Your task to perform on an android device: Search for bose quietcomfort 35 on costco, select the first entry, add it to the cart, then select checkout. Image 0: 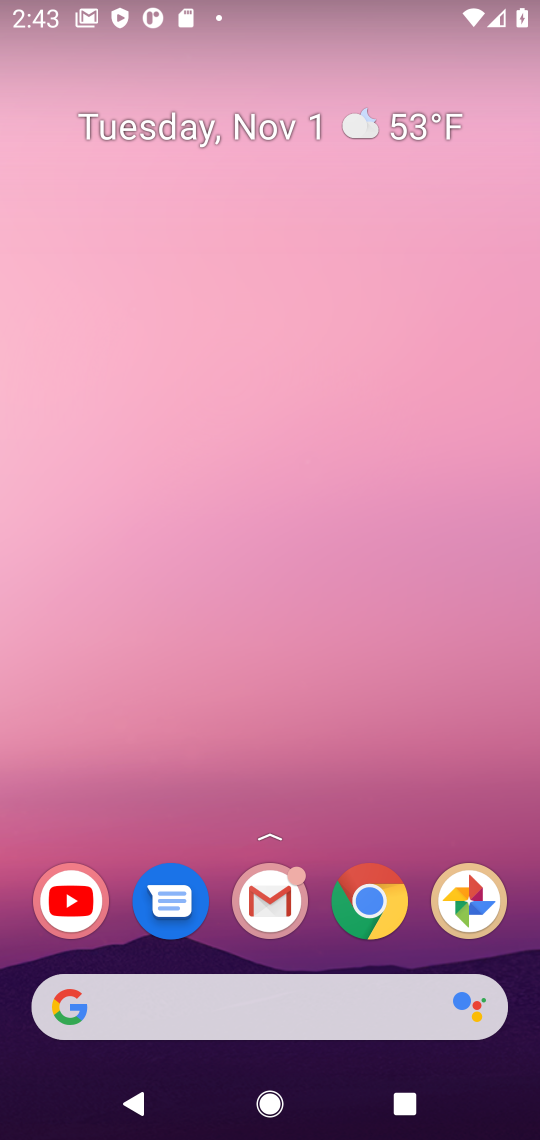
Step 0: click (365, 893)
Your task to perform on an android device: Search for bose quietcomfort 35 on costco, select the first entry, add it to the cart, then select checkout. Image 1: 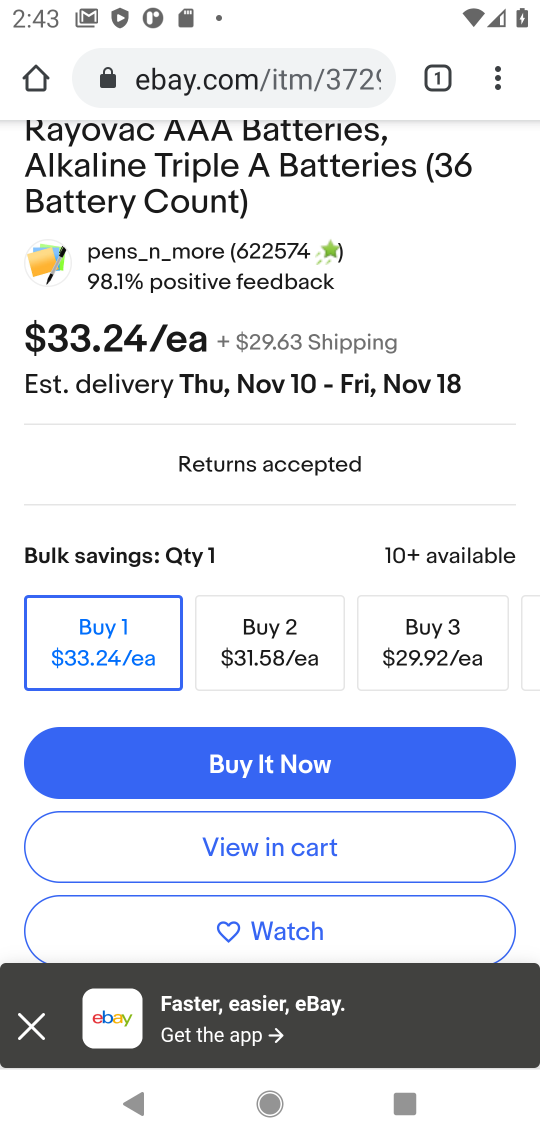
Step 1: click (297, 72)
Your task to perform on an android device: Search for bose quietcomfort 35 on costco, select the first entry, add it to the cart, then select checkout. Image 2: 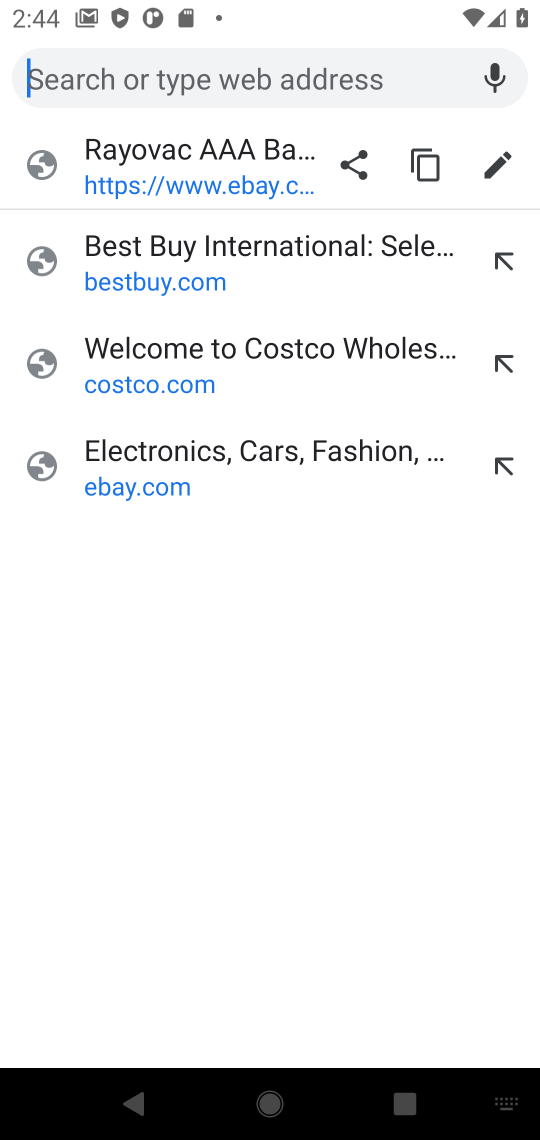
Step 2: type "costco"
Your task to perform on an android device: Search for bose quietcomfort 35 on costco, select the first entry, add it to the cart, then select checkout. Image 3: 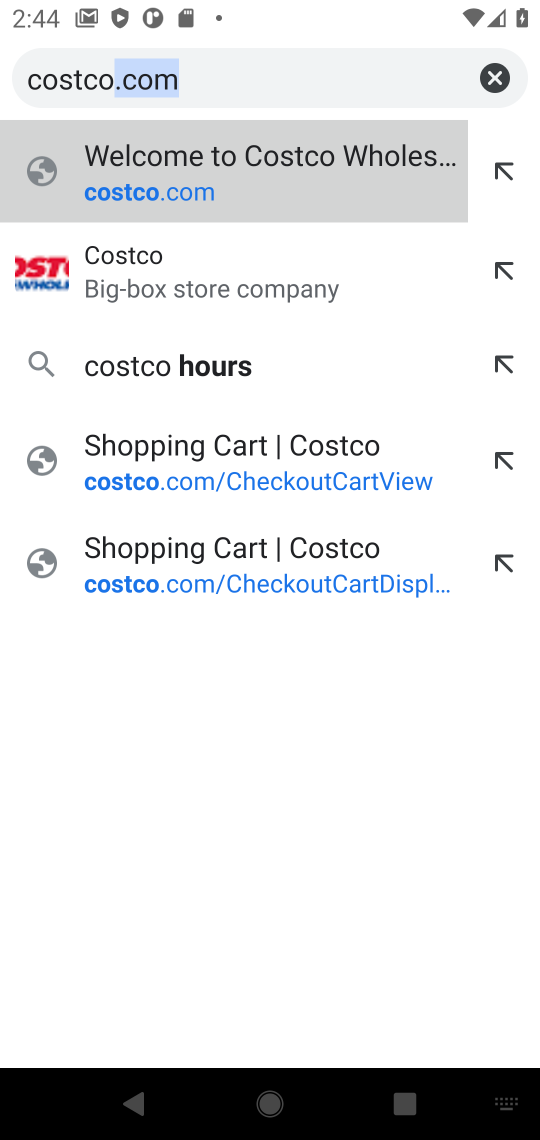
Step 3: click (203, 158)
Your task to perform on an android device: Search for bose quietcomfort 35 on costco, select the first entry, add it to the cart, then select checkout. Image 4: 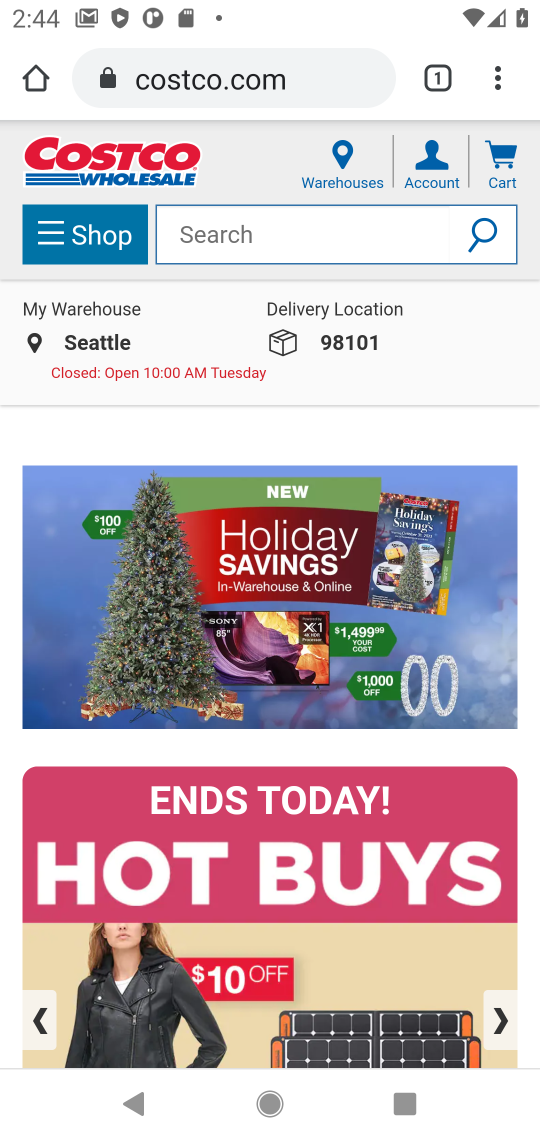
Step 4: click (207, 228)
Your task to perform on an android device: Search for bose quietcomfort 35 on costco, select the first entry, add it to the cart, then select checkout. Image 5: 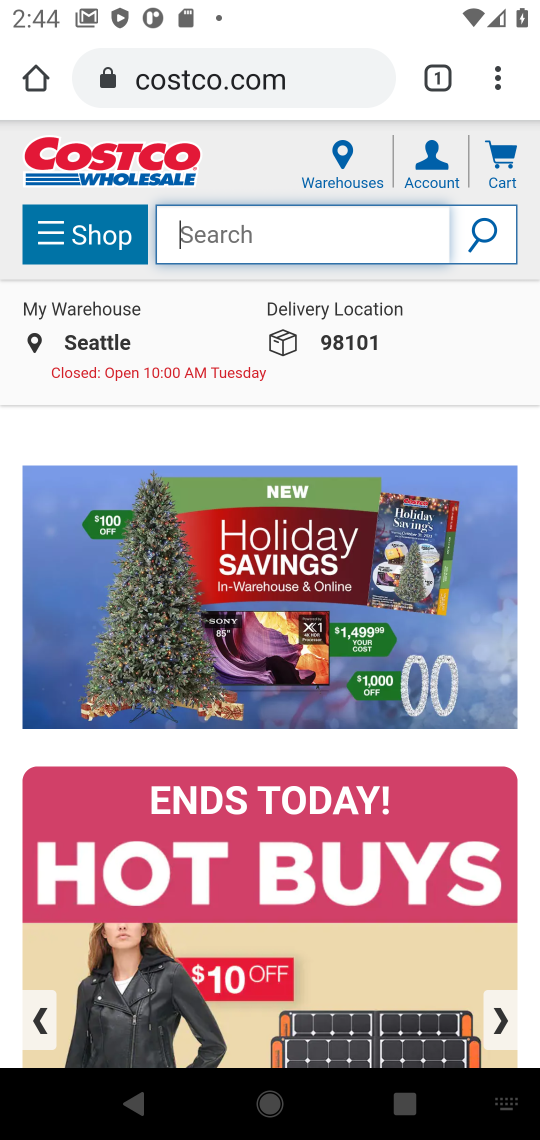
Step 5: type "bose quietcomfort 35"
Your task to perform on an android device: Search for bose quietcomfort 35 on costco, select the first entry, add it to the cart, then select checkout. Image 6: 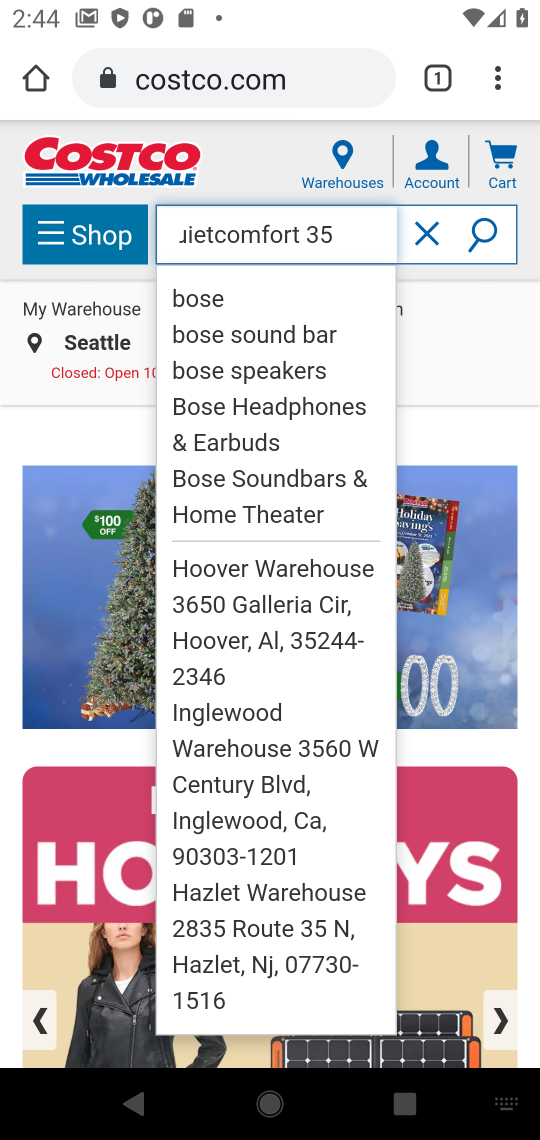
Step 6: press enter
Your task to perform on an android device: Search for bose quietcomfort 35 on costco, select the first entry, add it to the cart, then select checkout. Image 7: 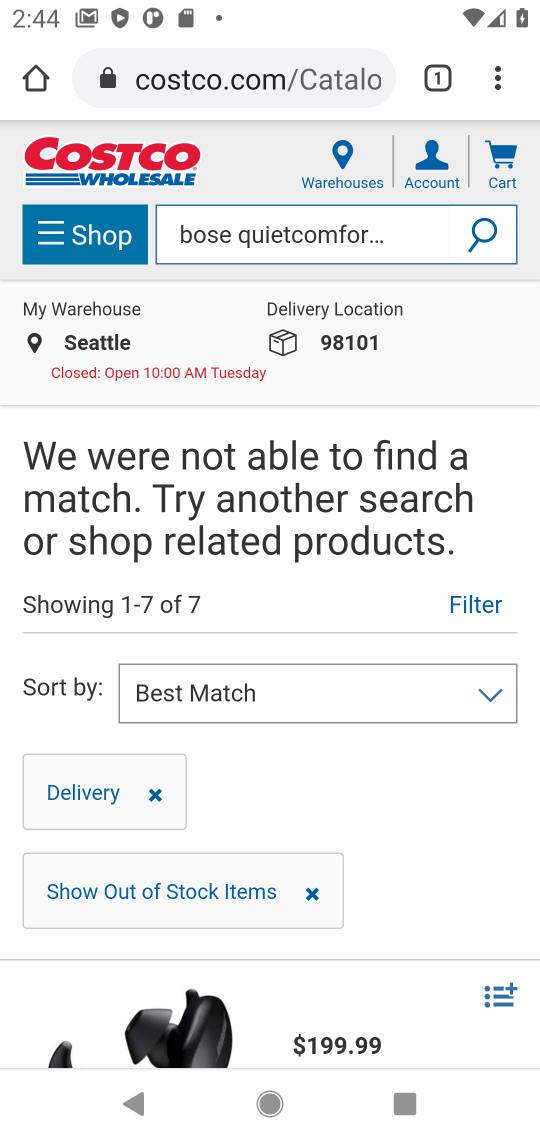
Step 7: task complete